Your task to perform on an android device: Show me productivity apps on the Play Store Image 0: 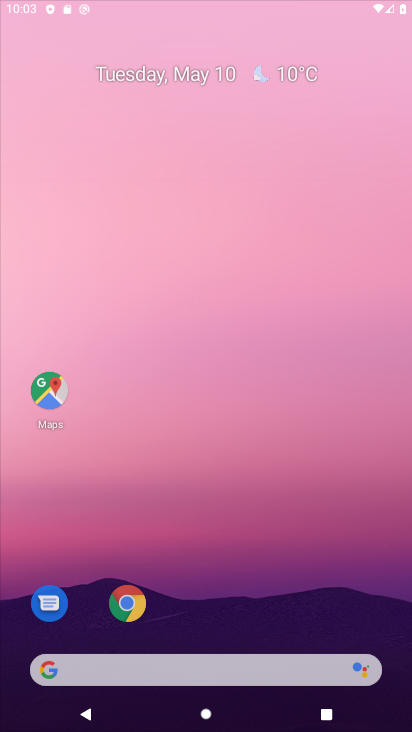
Step 0: click (145, 31)
Your task to perform on an android device: Show me productivity apps on the Play Store Image 1: 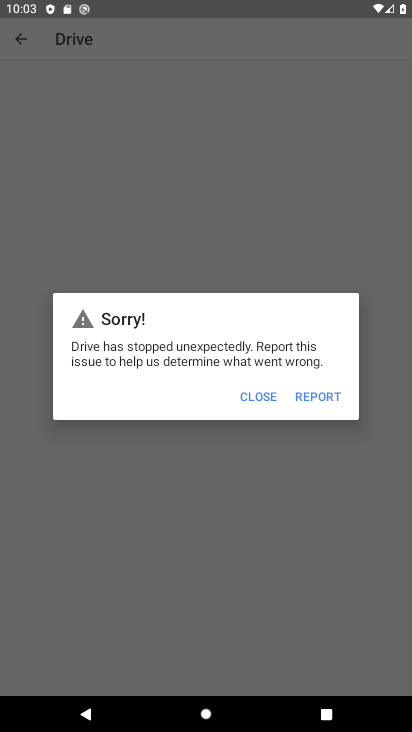
Step 1: click (262, 395)
Your task to perform on an android device: Show me productivity apps on the Play Store Image 2: 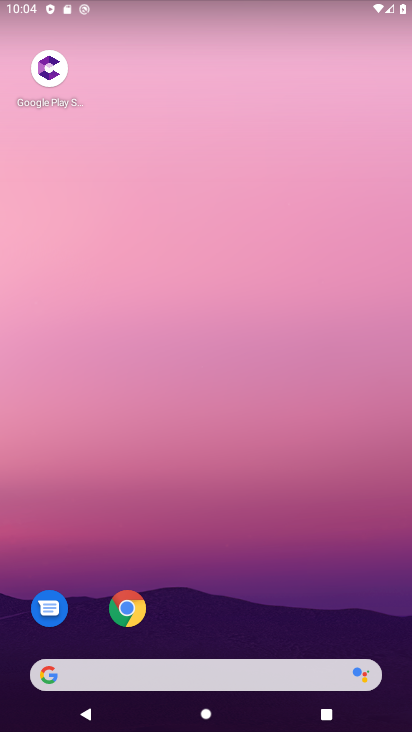
Step 2: drag from (231, 647) to (278, 15)
Your task to perform on an android device: Show me productivity apps on the Play Store Image 3: 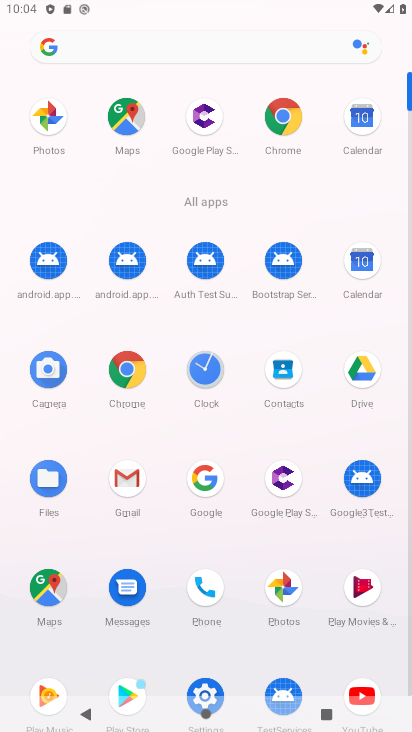
Step 3: click (113, 682)
Your task to perform on an android device: Show me productivity apps on the Play Store Image 4: 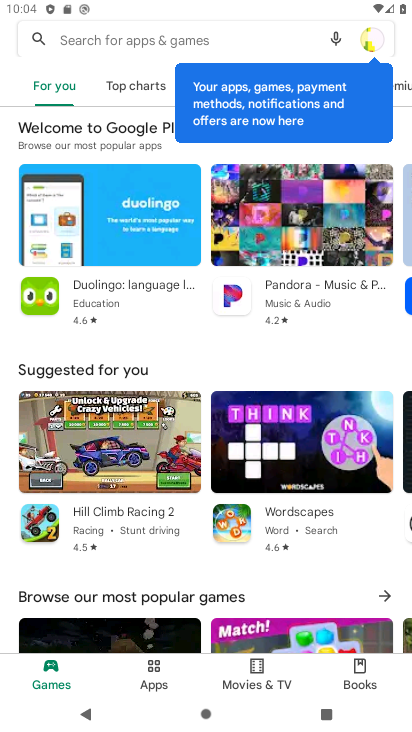
Step 4: click (143, 43)
Your task to perform on an android device: Show me productivity apps on the Play Store Image 5: 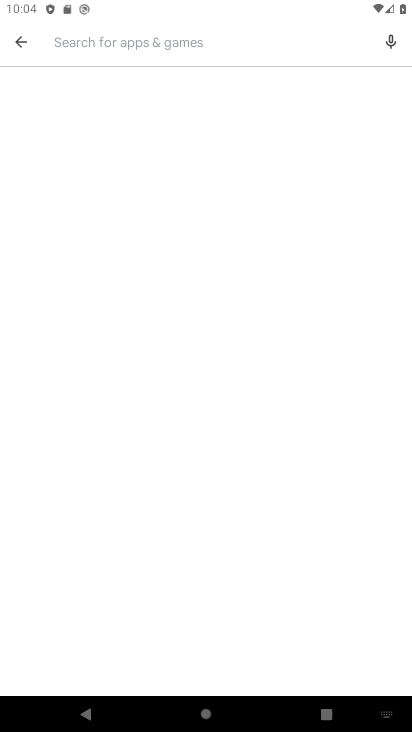
Step 5: type "productivity apps"
Your task to perform on an android device: Show me productivity apps on the Play Store Image 6: 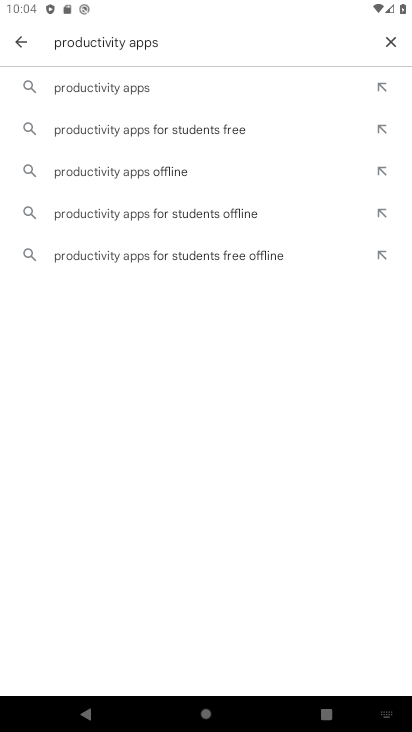
Step 6: click (143, 89)
Your task to perform on an android device: Show me productivity apps on the Play Store Image 7: 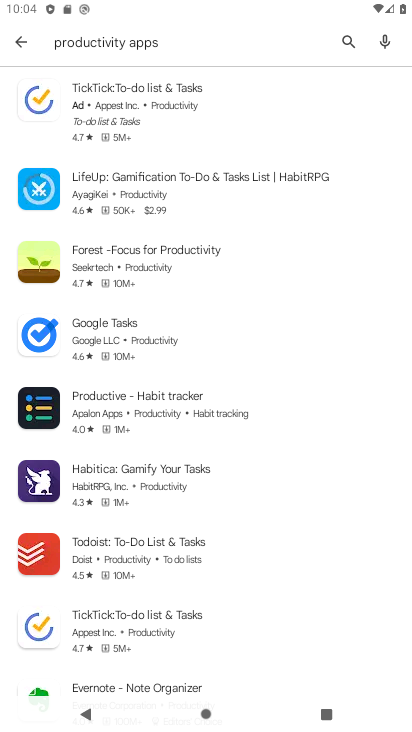
Step 7: task complete